Your task to perform on an android device: Open network settings Image 0: 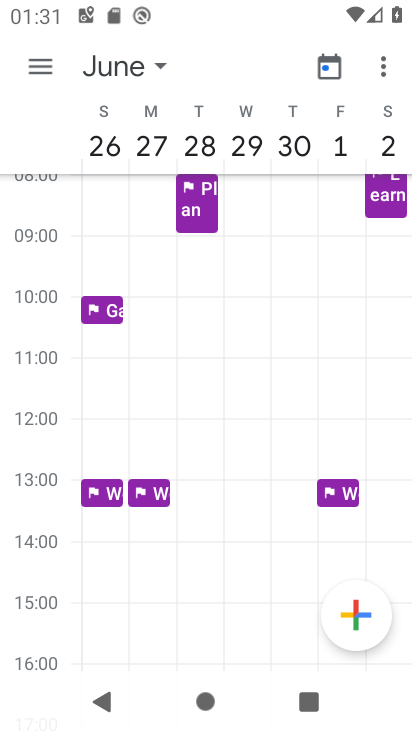
Step 0: press home button
Your task to perform on an android device: Open network settings Image 1: 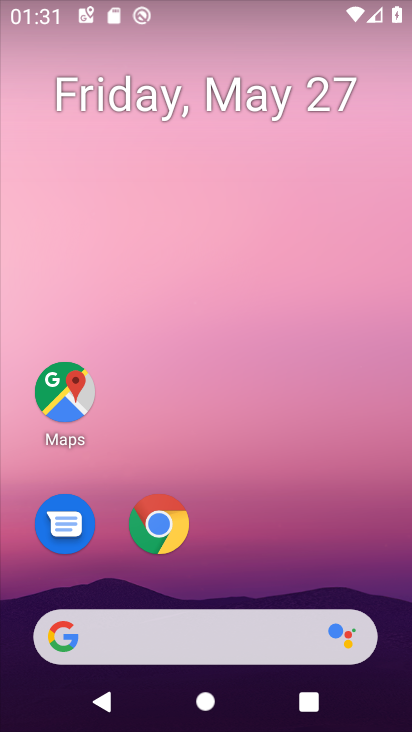
Step 1: drag from (227, 544) to (226, 13)
Your task to perform on an android device: Open network settings Image 2: 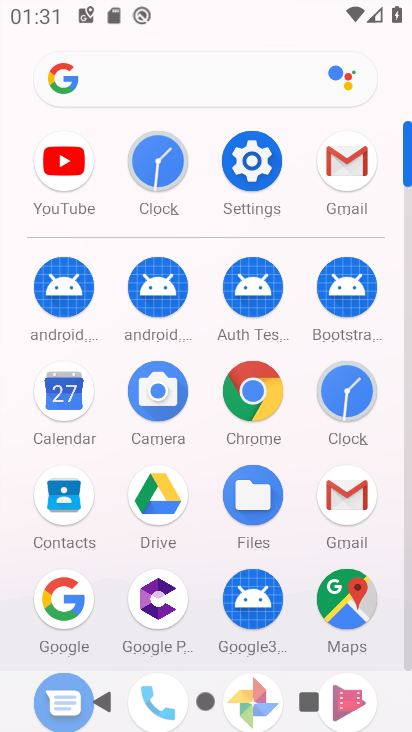
Step 2: click (250, 154)
Your task to perform on an android device: Open network settings Image 3: 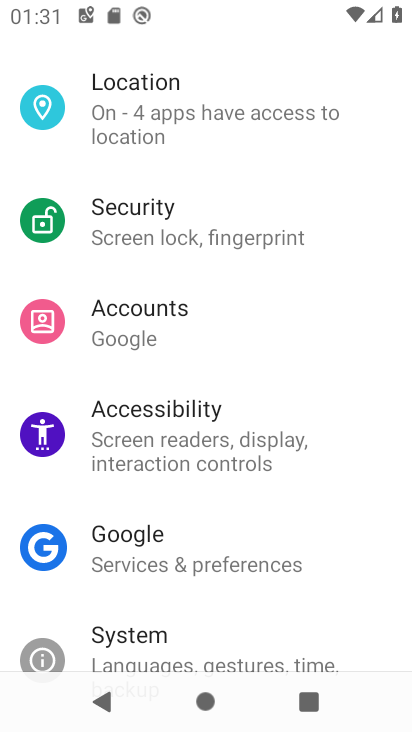
Step 3: drag from (250, 172) to (242, 620)
Your task to perform on an android device: Open network settings Image 4: 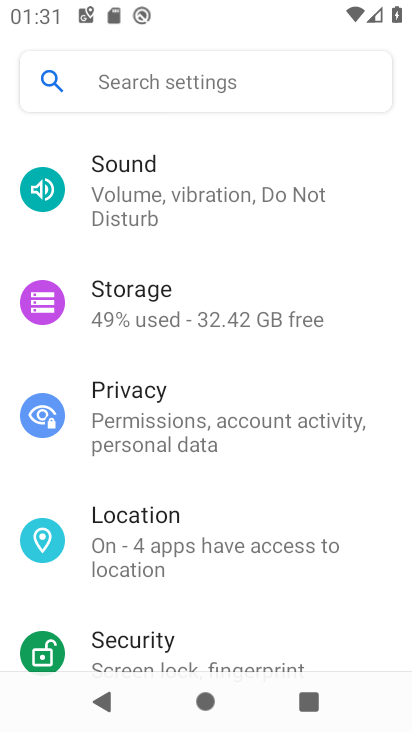
Step 4: drag from (228, 262) to (185, 634)
Your task to perform on an android device: Open network settings Image 5: 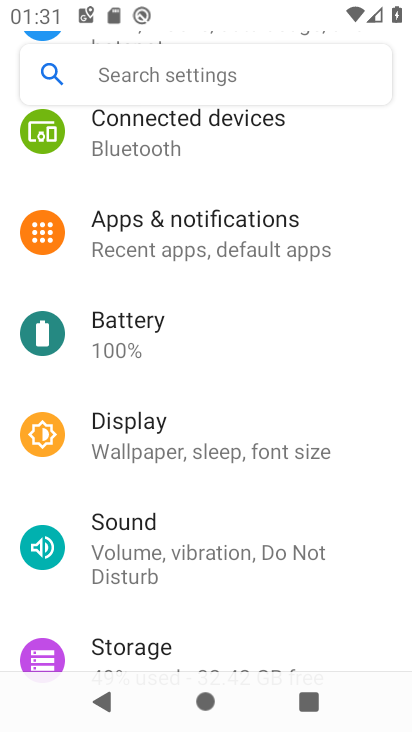
Step 5: drag from (213, 289) to (246, 614)
Your task to perform on an android device: Open network settings Image 6: 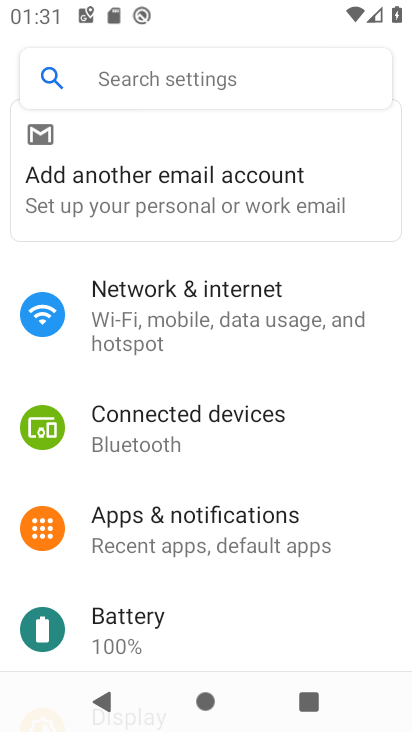
Step 6: click (225, 317)
Your task to perform on an android device: Open network settings Image 7: 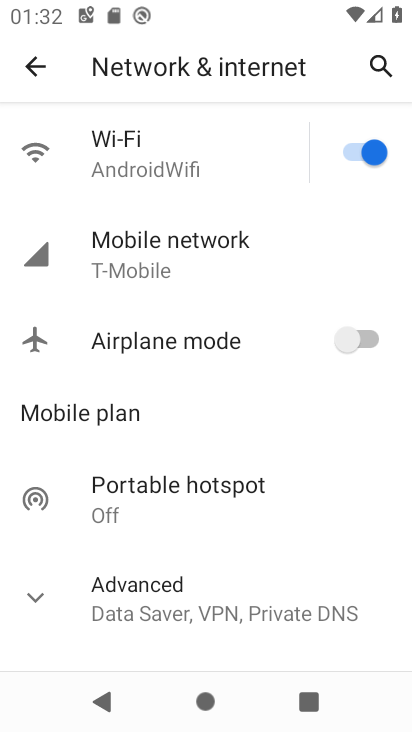
Step 7: task complete